Your task to perform on an android device: Open battery settings Image 0: 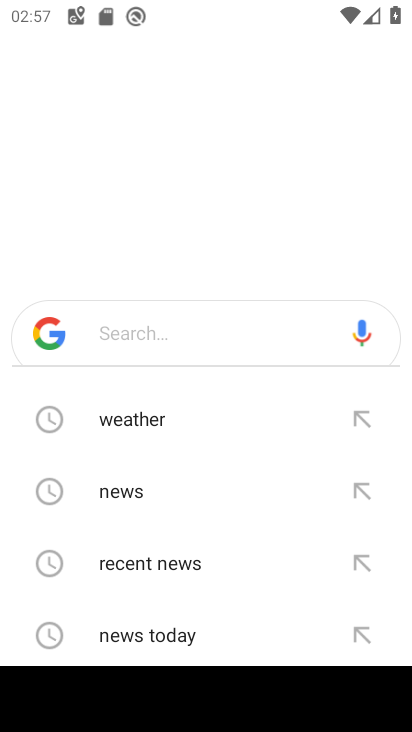
Step 0: press home button
Your task to perform on an android device: Open battery settings Image 1: 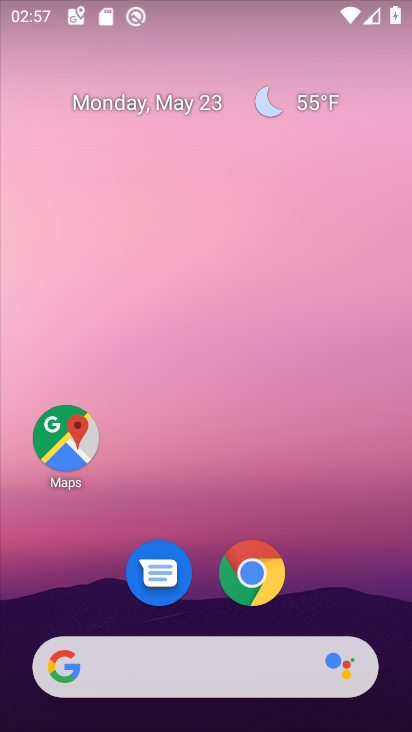
Step 1: drag from (341, 574) to (378, 1)
Your task to perform on an android device: Open battery settings Image 2: 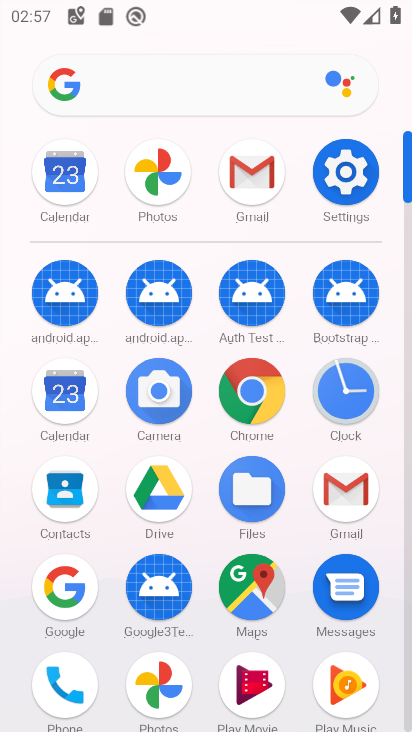
Step 2: click (350, 162)
Your task to perform on an android device: Open battery settings Image 3: 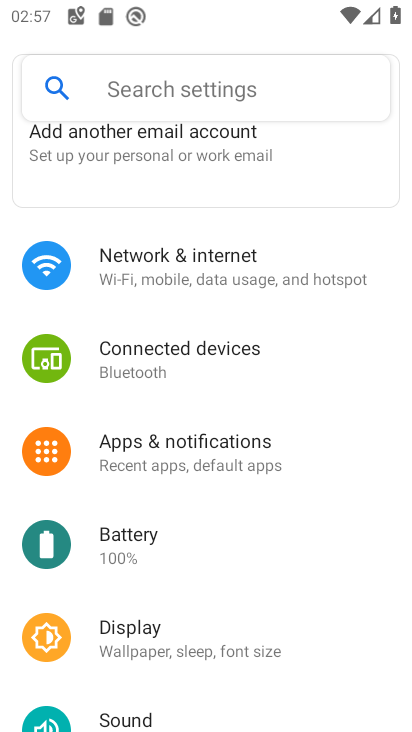
Step 3: click (146, 535)
Your task to perform on an android device: Open battery settings Image 4: 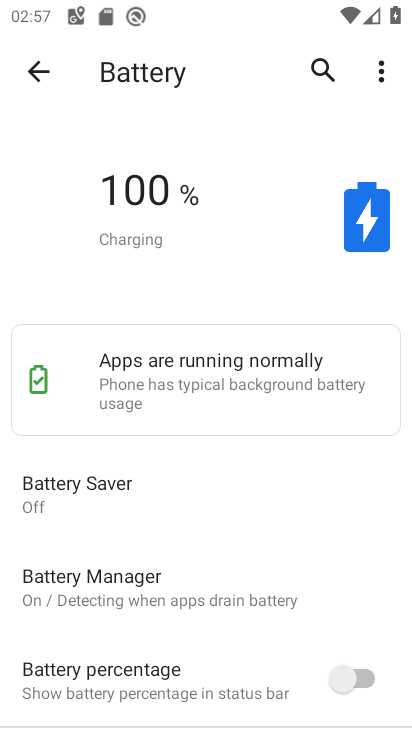
Step 4: click (377, 73)
Your task to perform on an android device: Open battery settings Image 5: 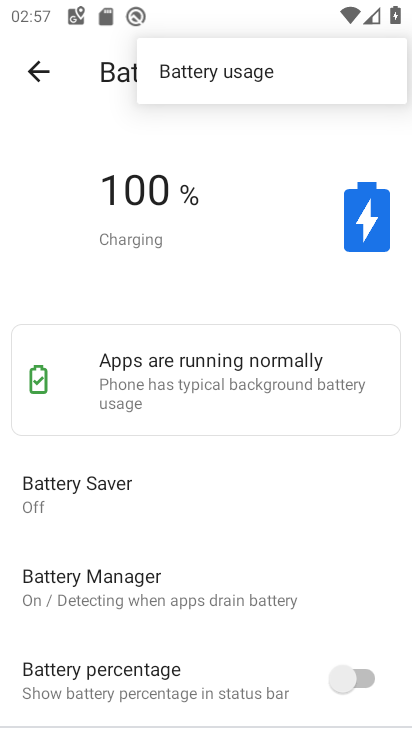
Step 5: click (377, 73)
Your task to perform on an android device: Open battery settings Image 6: 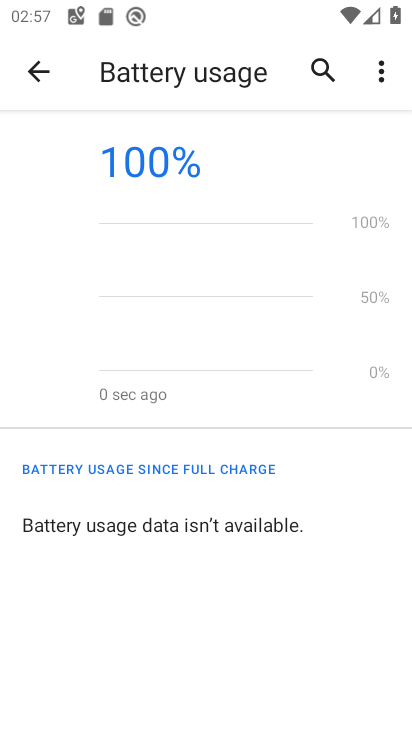
Step 6: click (310, 242)
Your task to perform on an android device: Open battery settings Image 7: 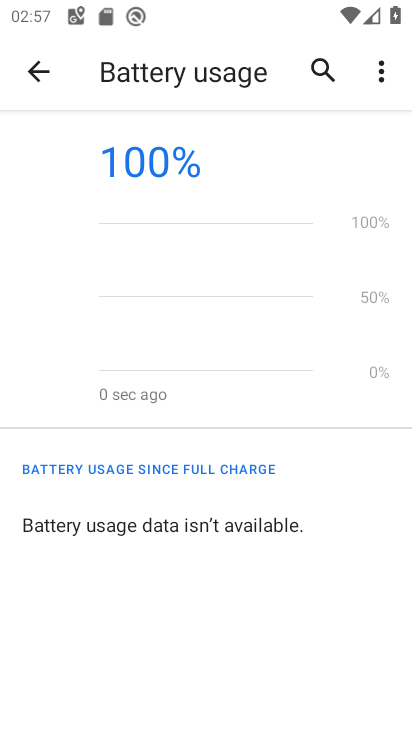
Step 7: click (386, 69)
Your task to perform on an android device: Open battery settings Image 8: 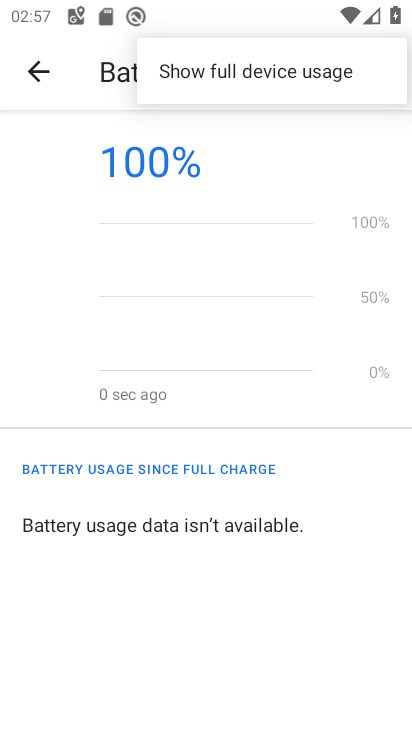
Step 8: click (305, 193)
Your task to perform on an android device: Open battery settings Image 9: 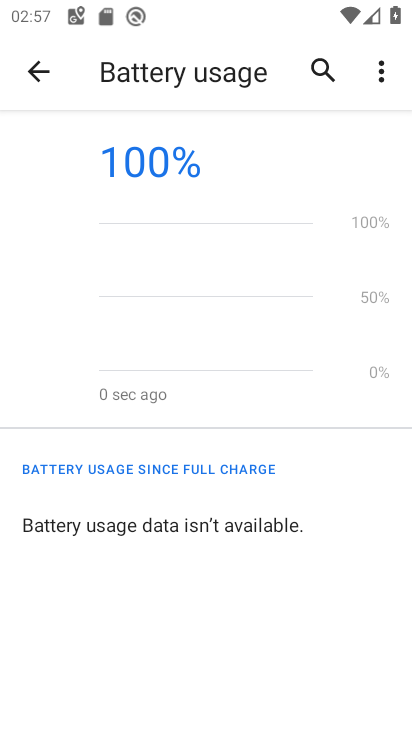
Step 9: click (379, 73)
Your task to perform on an android device: Open battery settings Image 10: 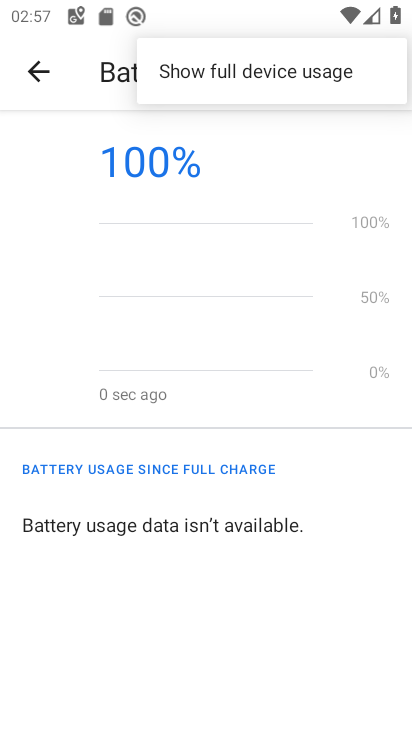
Step 10: task complete